Your task to perform on an android device: Play the last video I watched on Youtube Image 0: 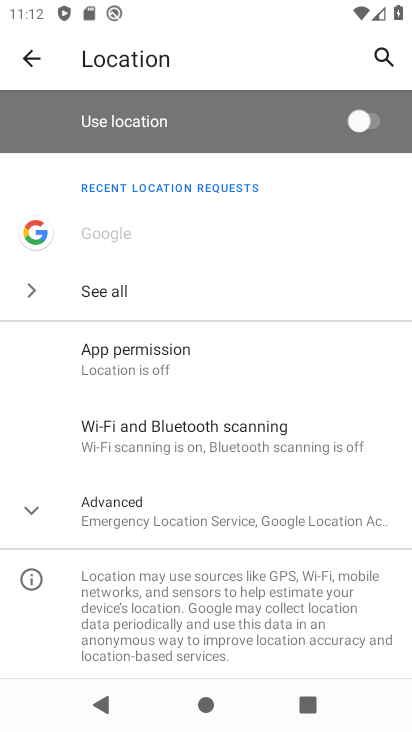
Step 0: press home button
Your task to perform on an android device: Play the last video I watched on Youtube Image 1: 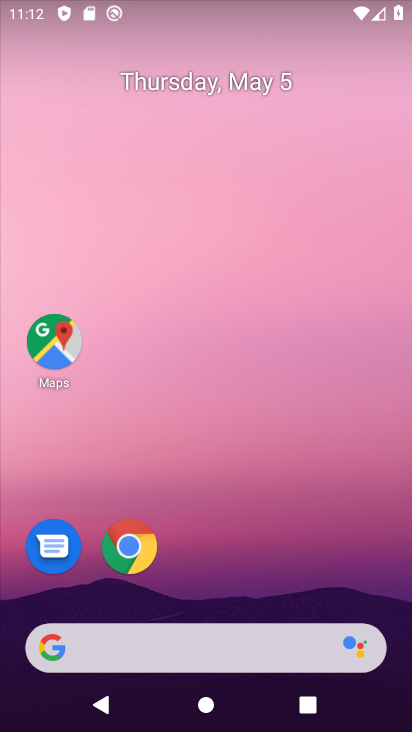
Step 1: drag from (233, 590) to (192, 2)
Your task to perform on an android device: Play the last video I watched on Youtube Image 2: 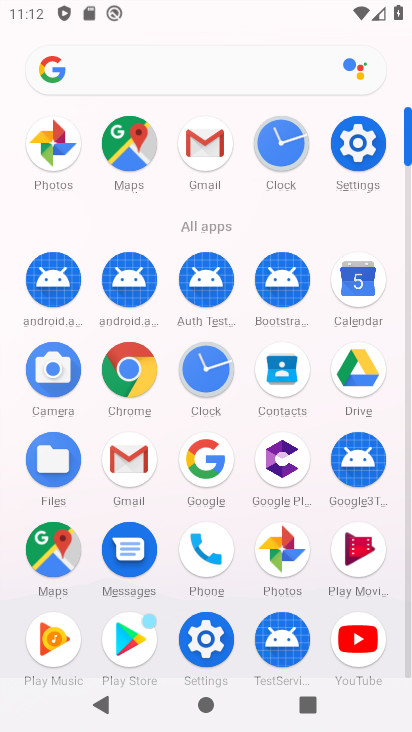
Step 2: click (366, 640)
Your task to perform on an android device: Play the last video I watched on Youtube Image 3: 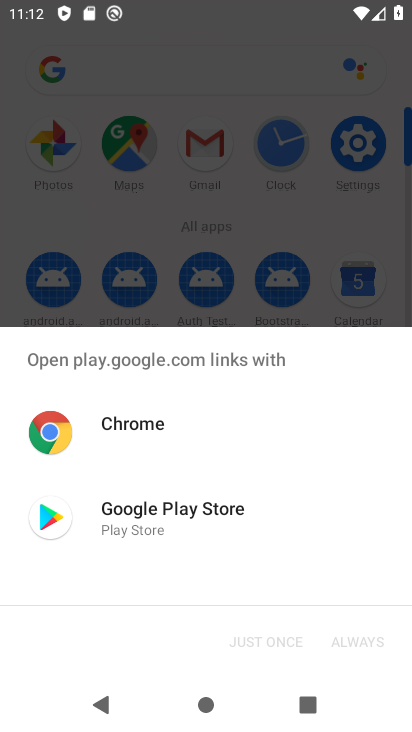
Step 3: press back button
Your task to perform on an android device: Play the last video I watched on Youtube Image 4: 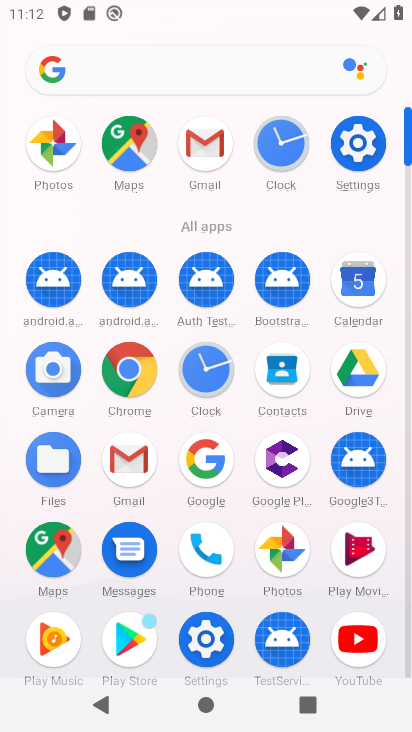
Step 4: click (351, 643)
Your task to perform on an android device: Play the last video I watched on Youtube Image 5: 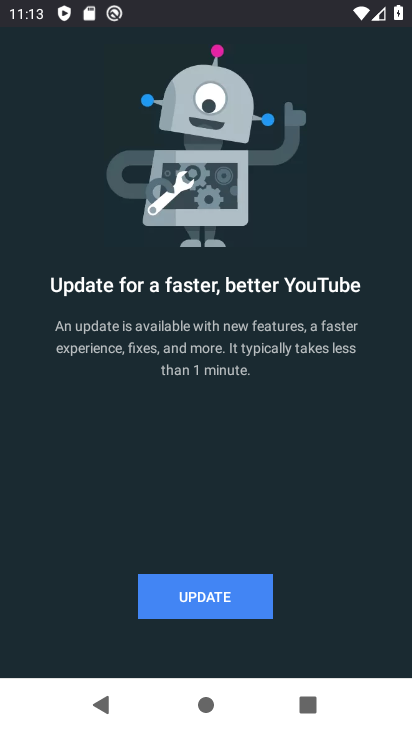
Step 5: press back button
Your task to perform on an android device: Play the last video I watched on Youtube Image 6: 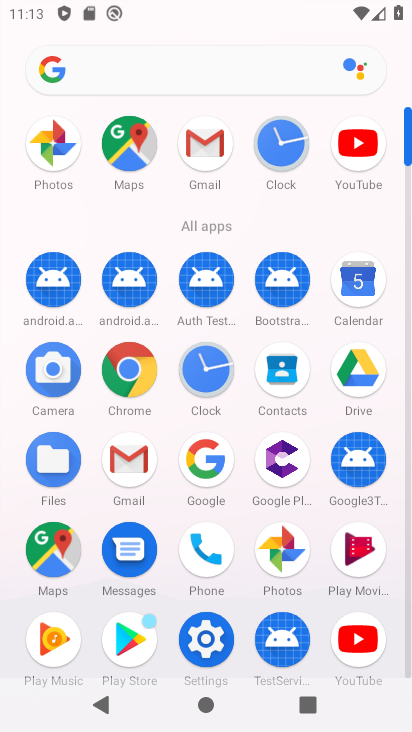
Step 6: click (360, 642)
Your task to perform on an android device: Play the last video I watched on Youtube Image 7: 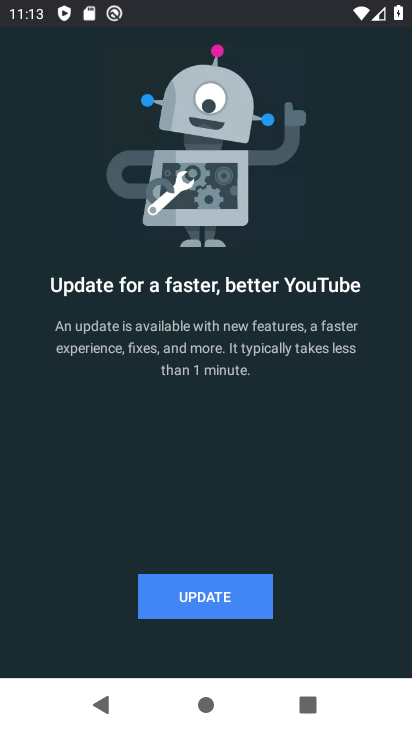
Step 7: click (193, 612)
Your task to perform on an android device: Play the last video I watched on Youtube Image 8: 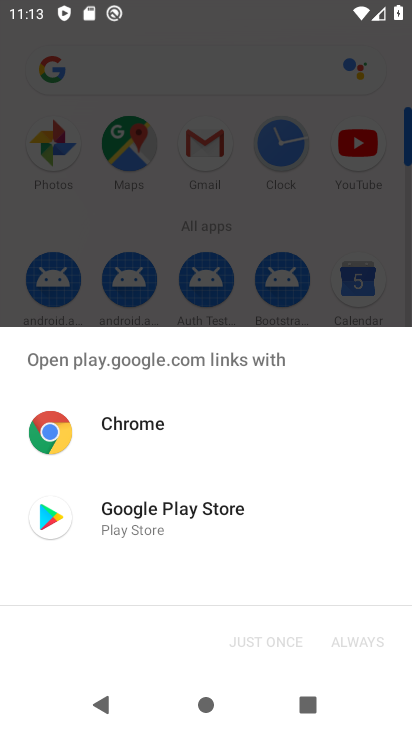
Step 8: click (184, 526)
Your task to perform on an android device: Play the last video I watched on Youtube Image 9: 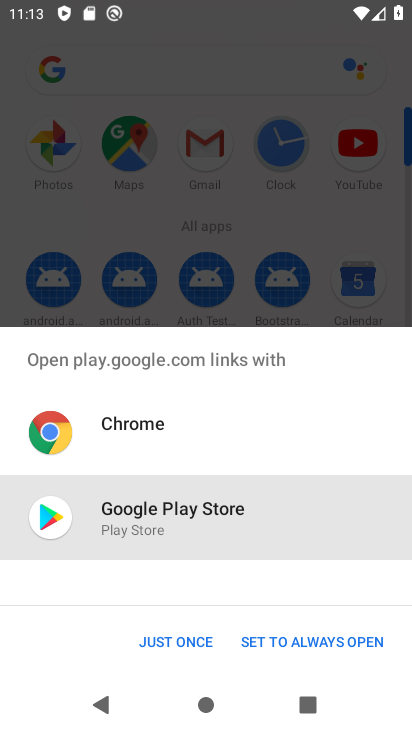
Step 9: click (193, 649)
Your task to perform on an android device: Play the last video I watched on Youtube Image 10: 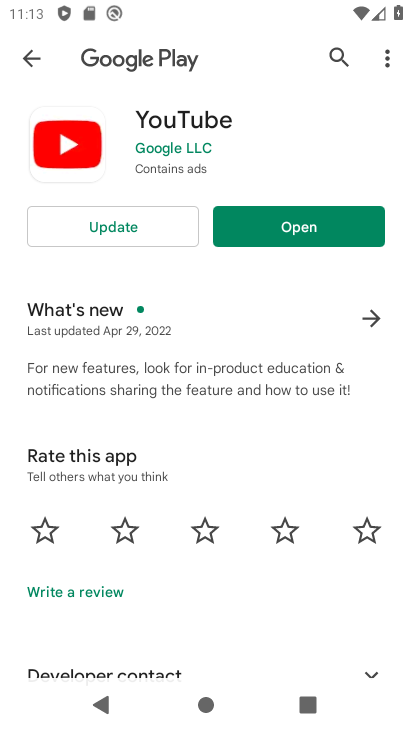
Step 10: click (126, 215)
Your task to perform on an android device: Play the last video I watched on Youtube Image 11: 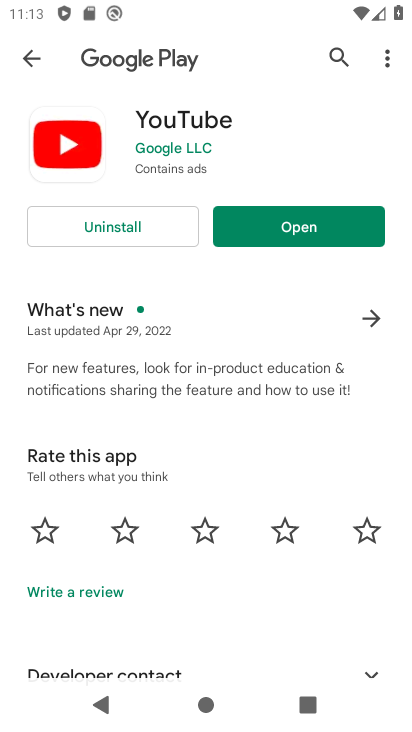
Step 11: click (297, 206)
Your task to perform on an android device: Play the last video I watched on Youtube Image 12: 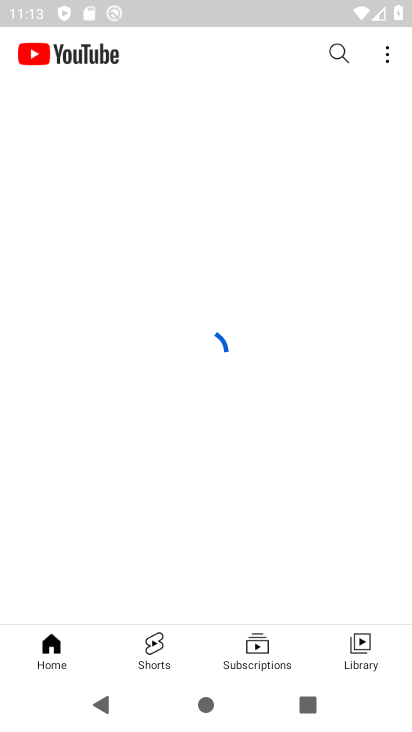
Step 12: click (352, 654)
Your task to perform on an android device: Play the last video I watched on Youtube Image 13: 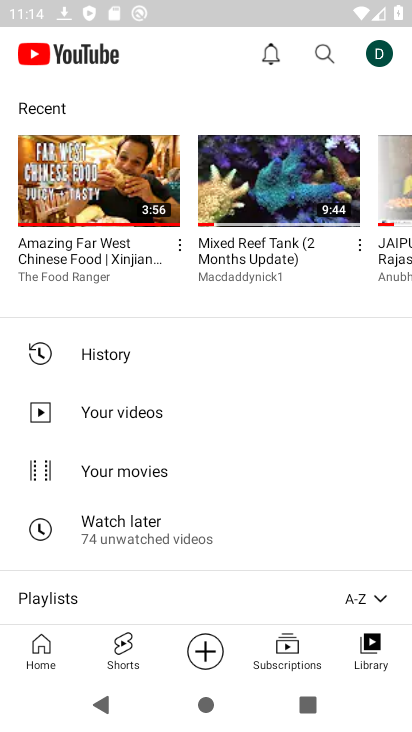
Step 13: click (112, 348)
Your task to perform on an android device: Play the last video I watched on Youtube Image 14: 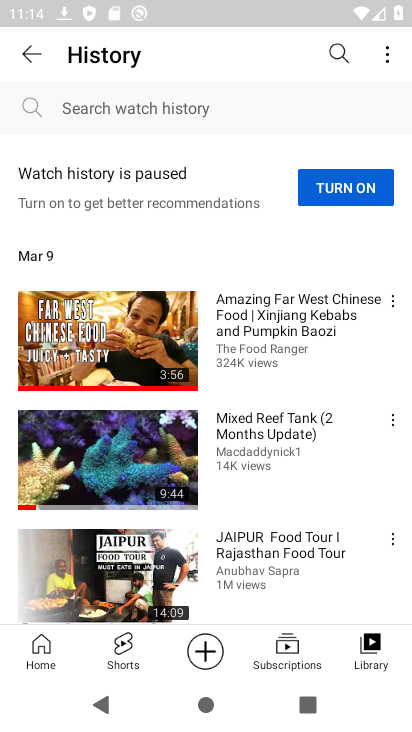
Step 14: click (112, 347)
Your task to perform on an android device: Play the last video I watched on Youtube Image 15: 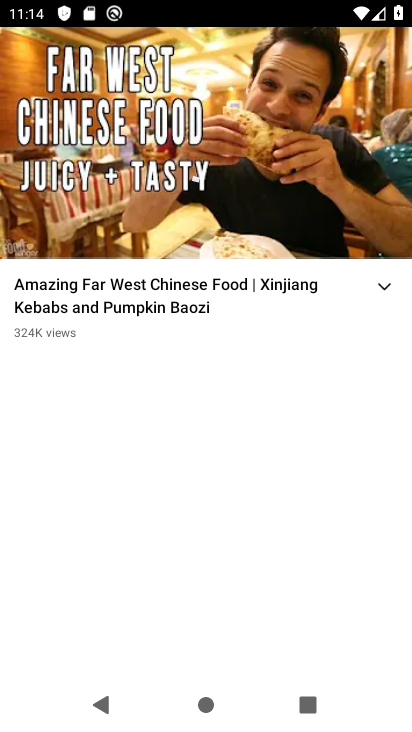
Step 15: click (185, 122)
Your task to perform on an android device: Play the last video I watched on Youtube Image 16: 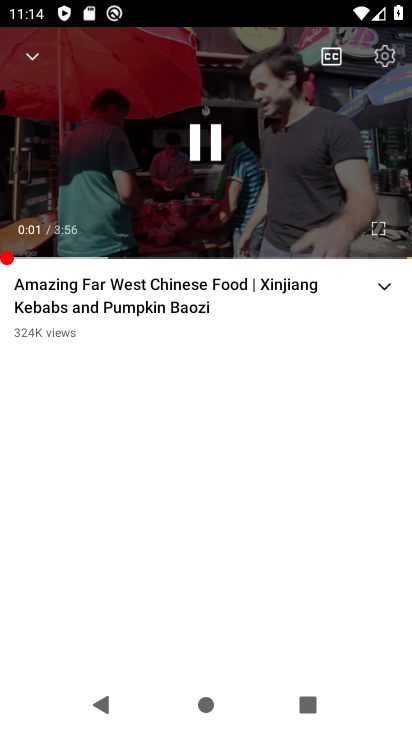
Step 16: click (202, 123)
Your task to perform on an android device: Play the last video I watched on Youtube Image 17: 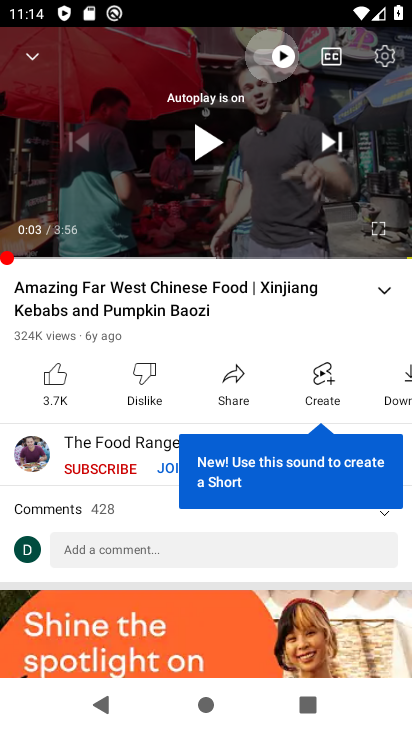
Step 17: task complete